Your task to perform on an android device: clear history in the chrome app Image 0: 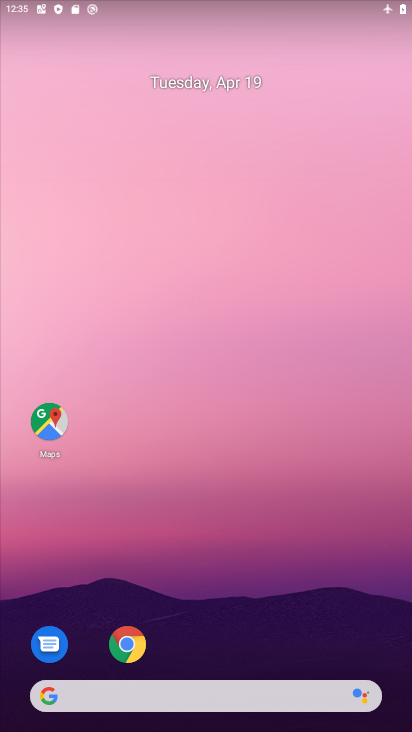
Step 0: click (128, 650)
Your task to perform on an android device: clear history in the chrome app Image 1: 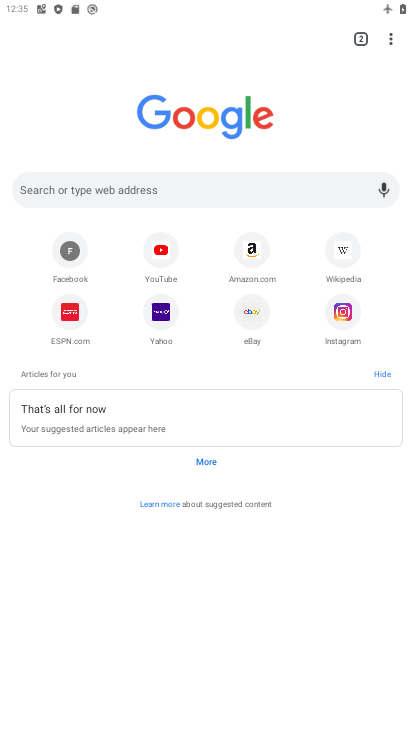
Step 1: click (387, 52)
Your task to perform on an android device: clear history in the chrome app Image 2: 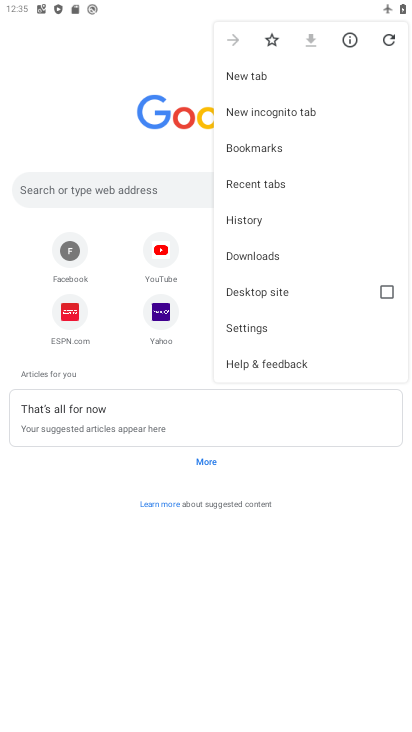
Step 2: click (297, 210)
Your task to perform on an android device: clear history in the chrome app Image 3: 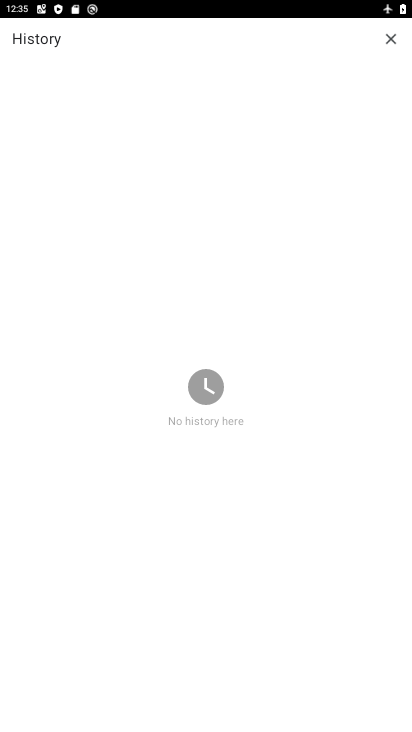
Step 3: task complete